Your task to perform on an android device: change notifications settings Image 0: 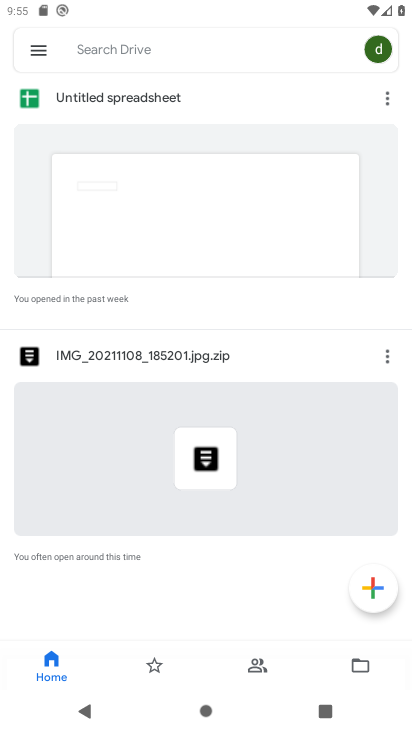
Step 0: press back button
Your task to perform on an android device: change notifications settings Image 1: 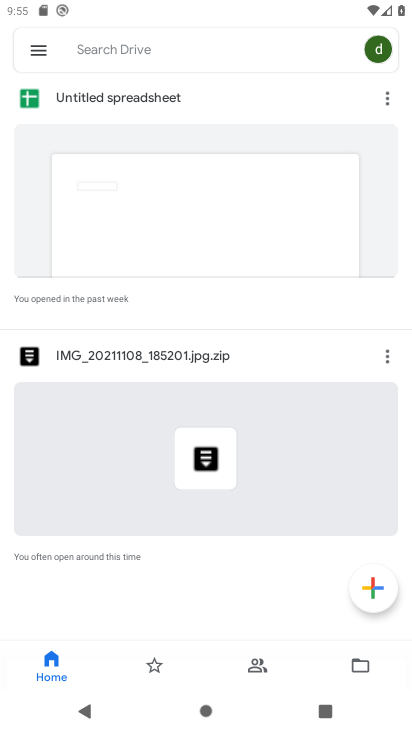
Step 1: press back button
Your task to perform on an android device: change notifications settings Image 2: 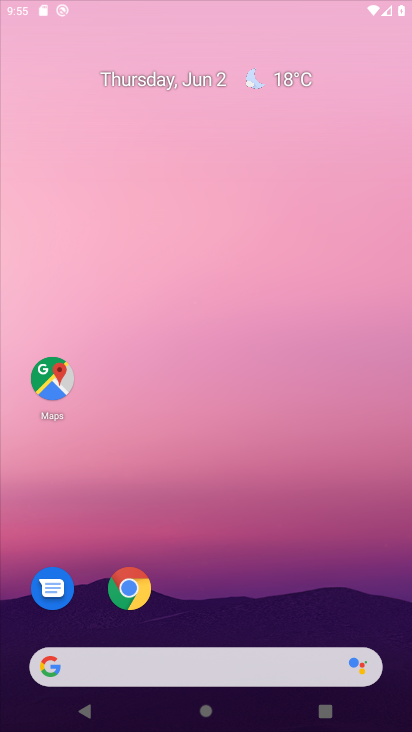
Step 2: press back button
Your task to perform on an android device: change notifications settings Image 3: 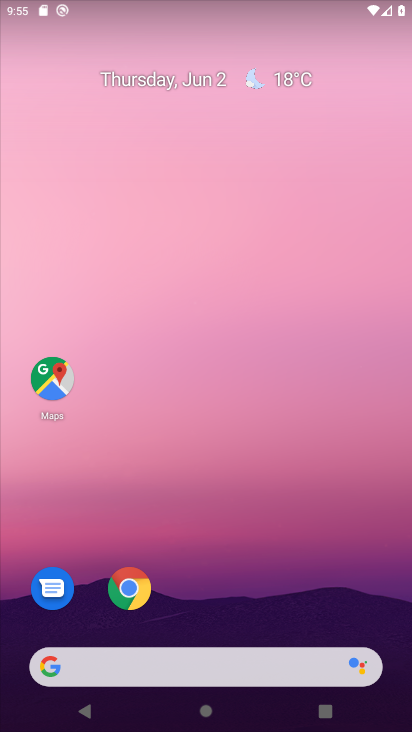
Step 3: drag from (287, 703) to (223, 91)
Your task to perform on an android device: change notifications settings Image 4: 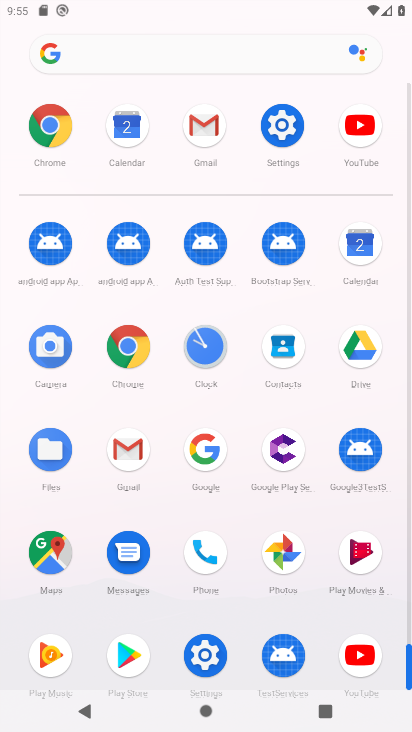
Step 4: click (201, 658)
Your task to perform on an android device: change notifications settings Image 5: 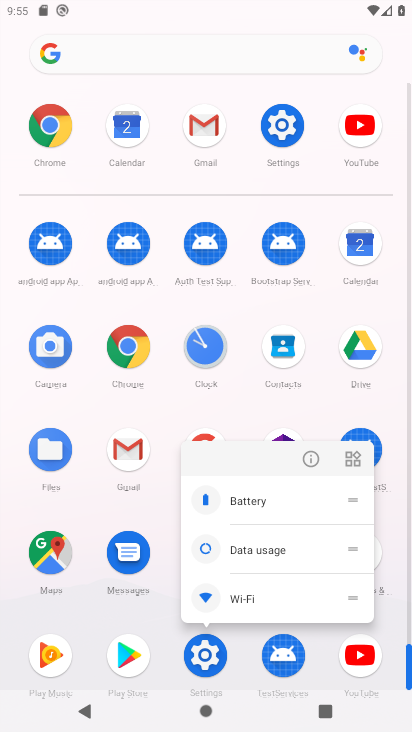
Step 5: click (209, 649)
Your task to perform on an android device: change notifications settings Image 6: 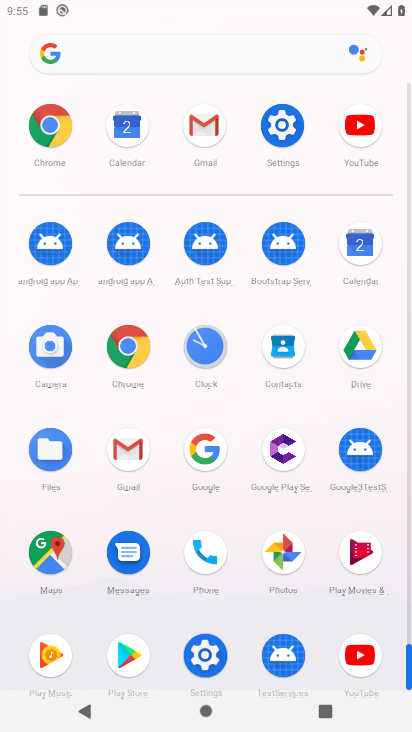
Step 6: click (210, 652)
Your task to perform on an android device: change notifications settings Image 7: 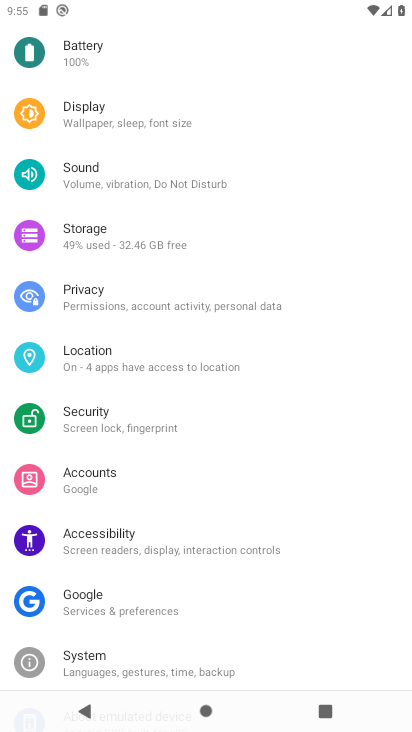
Step 7: click (210, 650)
Your task to perform on an android device: change notifications settings Image 8: 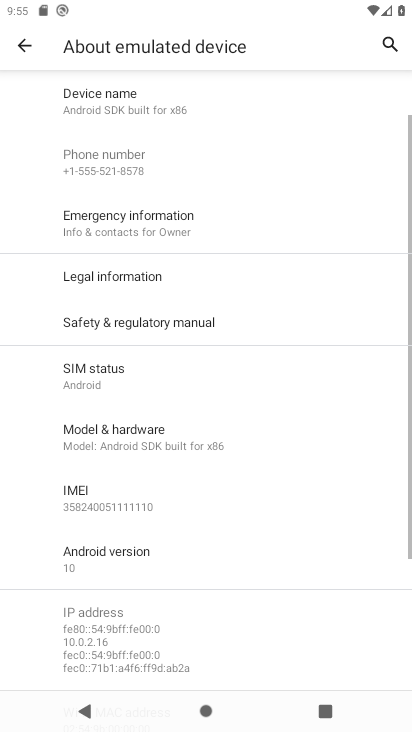
Step 8: click (26, 49)
Your task to perform on an android device: change notifications settings Image 9: 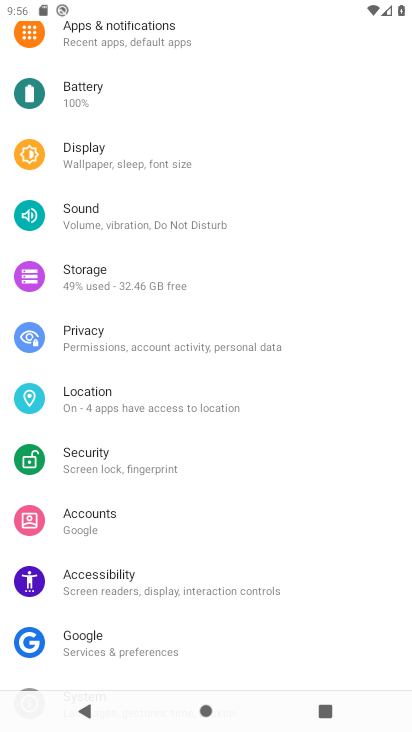
Step 9: click (126, 36)
Your task to perform on an android device: change notifications settings Image 10: 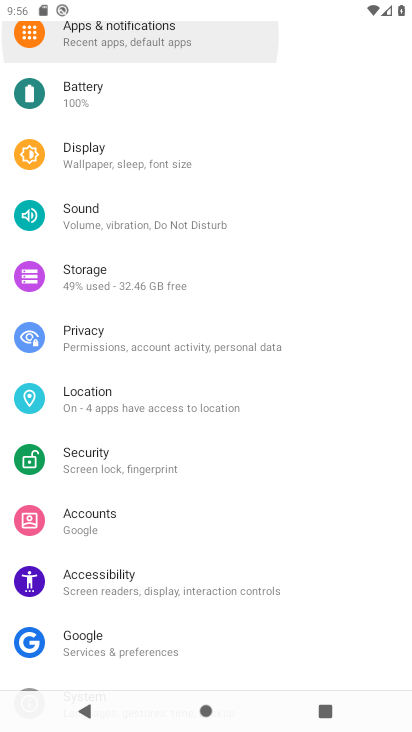
Step 10: click (126, 32)
Your task to perform on an android device: change notifications settings Image 11: 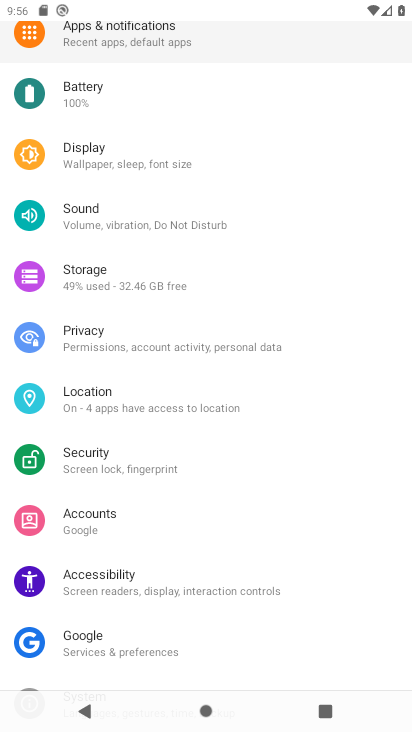
Step 11: click (126, 32)
Your task to perform on an android device: change notifications settings Image 12: 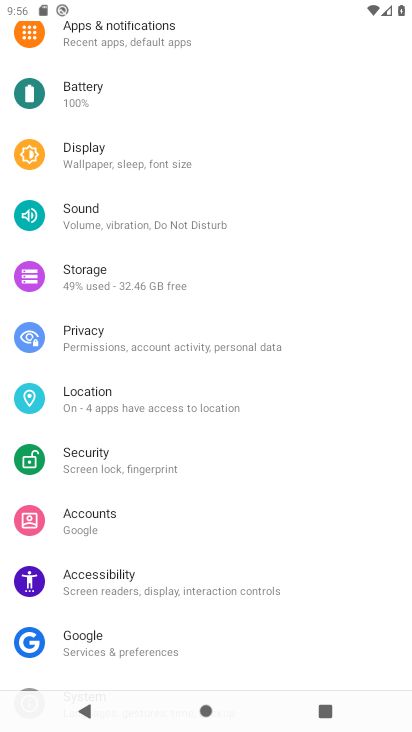
Step 12: click (126, 32)
Your task to perform on an android device: change notifications settings Image 13: 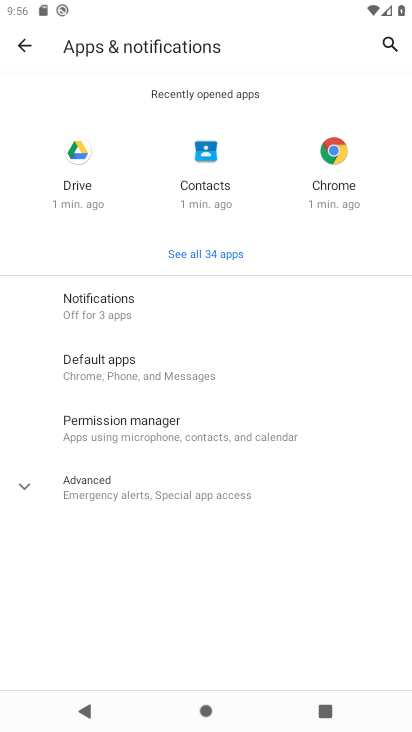
Step 13: click (83, 297)
Your task to perform on an android device: change notifications settings Image 14: 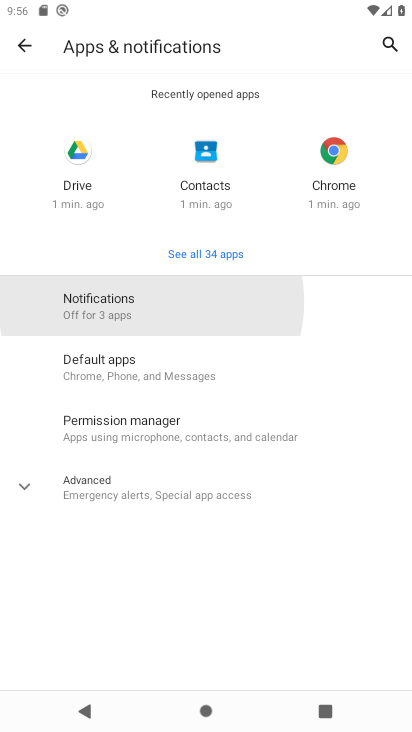
Step 14: click (83, 299)
Your task to perform on an android device: change notifications settings Image 15: 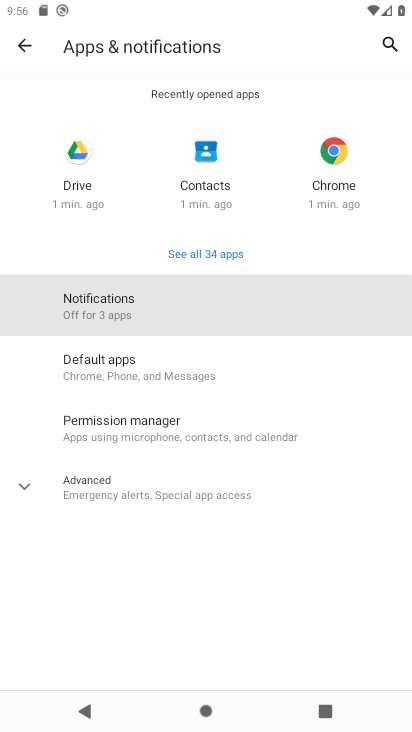
Step 15: click (83, 298)
Your task to perform on an android device: change notifications settings Image 16: 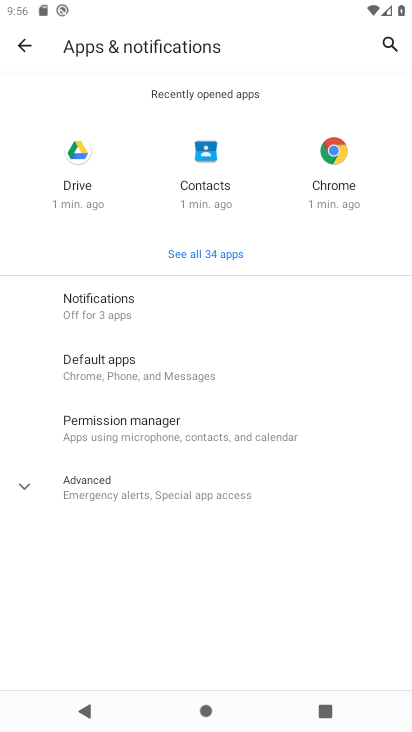
Step 16: click (84, 296)
Your task to perform on an android device: change notifications settings Image 17: 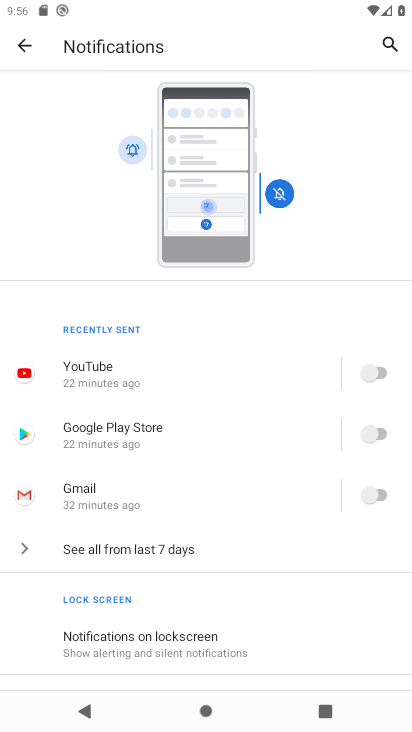
Step 17: drag from (254, 534) to (234, 299)
Your task to perform on an android device: change notifications settings Image 18: 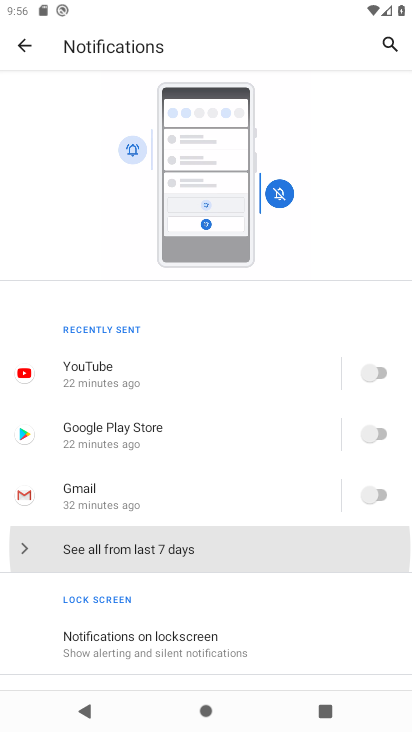
Step 18: click (217, 231)
Your task to perform on an android device: change notifications settings Image 19: 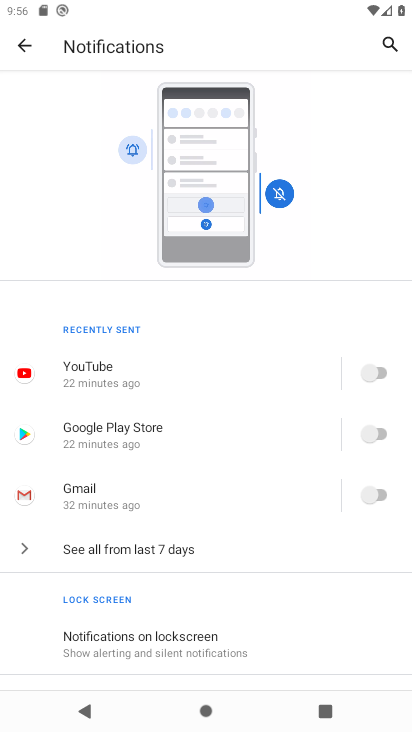
Step 19: drag from (202, 557) to (202, 234)
Your task to perform on an android device: change notifications settings Image 20: 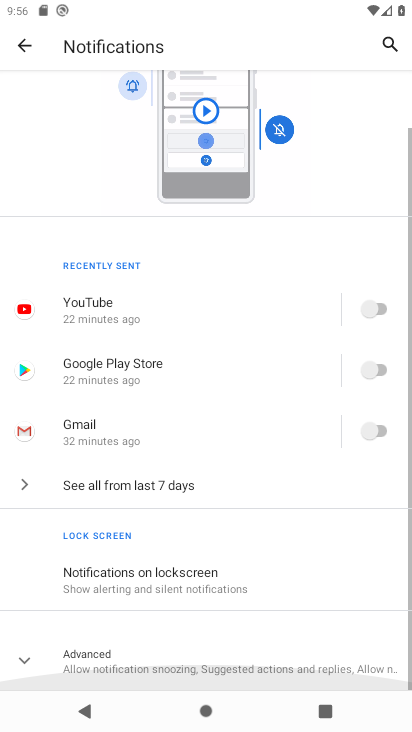
Step 20: drag from (274, 547) to (260, 277)
Your task to perform on an android device: change notifications settings Image 21: 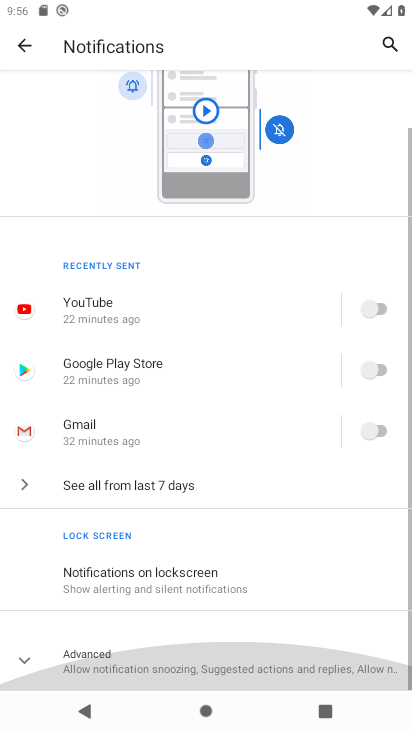
Step 21: drag from (270, 586) to (289, 338)
Your task to perform on an android device: change notifications settings Image 22: 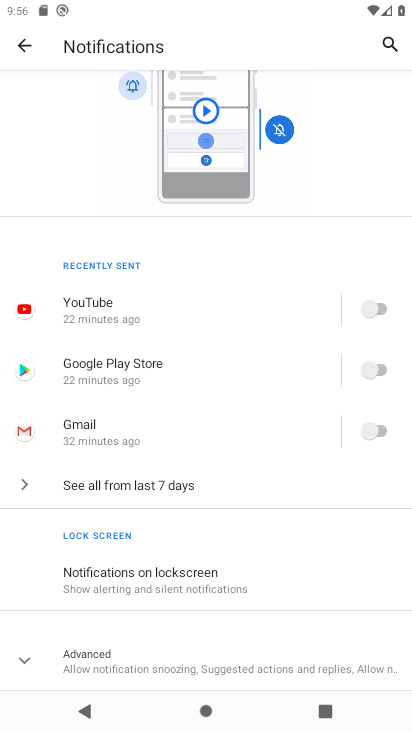
Step 22: click (364, 308)
Your task to perform on an android device: change notifications settings Image 23: 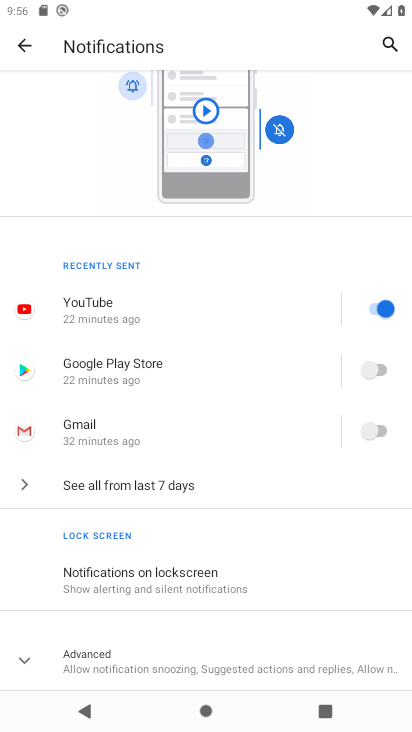
Step 23: click (377, 364)
Your task to perform on an android device: change notifications settings Image 24: 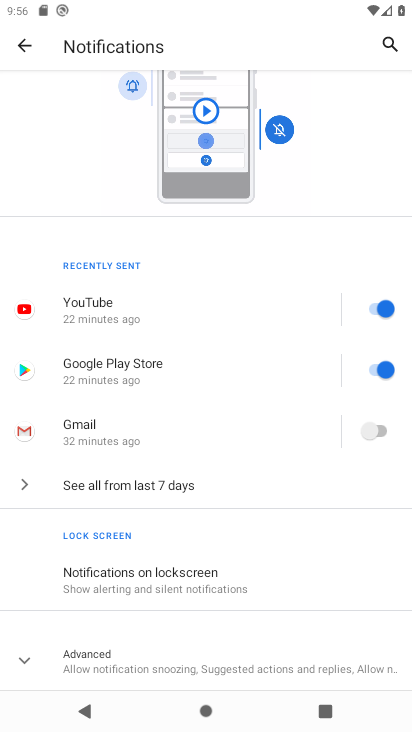
Step 24: click (379, 422)
Your task to perform on an android device: change notifications settings Image 25: 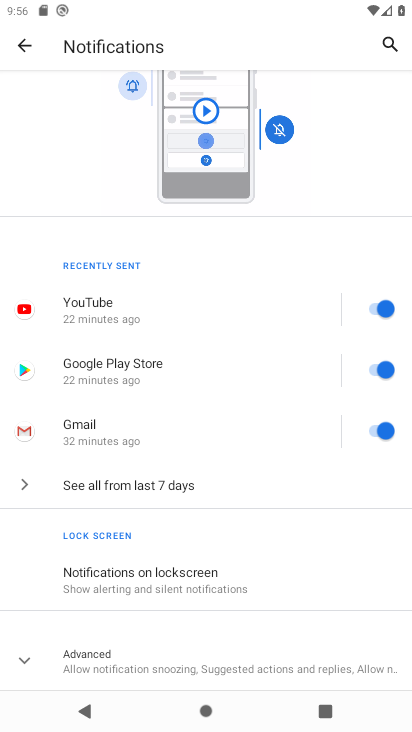
Step 25: task complete